Your task to perform on an android device: Search for seafood restaurants on Google Maps Image 0: 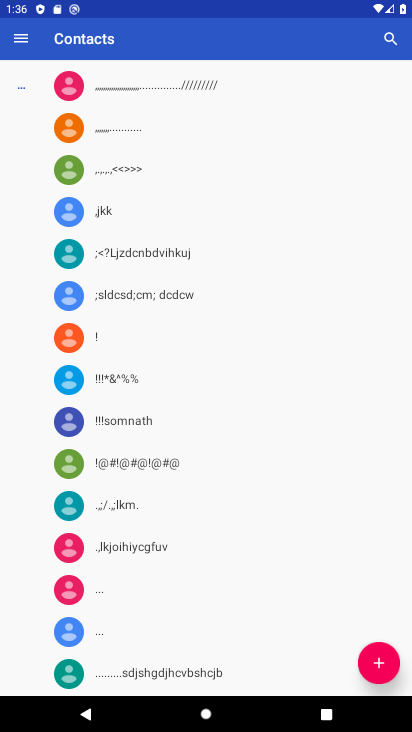
Step 0: press home button
Your task to perform on an android device: Search for seafood restaurants on Google Maps Image 1: 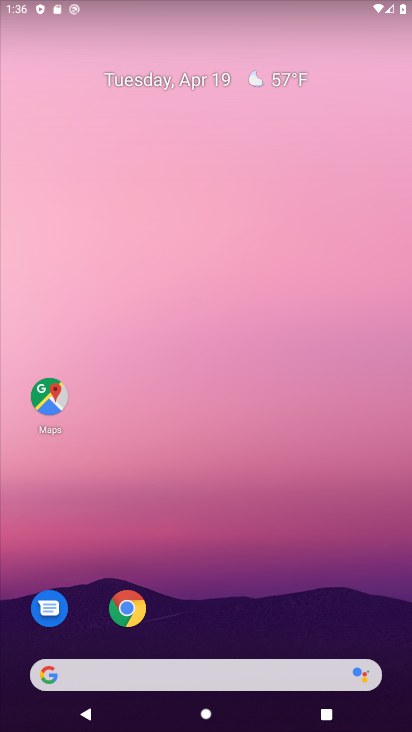
Step 1: click (48, 385)
Your task to perform on an android device: Search for seafood restaurants on Google Maps Image 2: 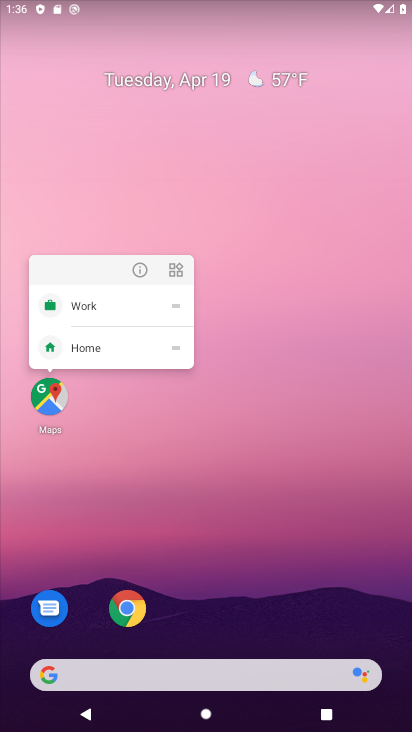
Step 2: click (55, 391)
Your task to perform on an android device: Search for seafood restaurants on Google Maps Image 3: 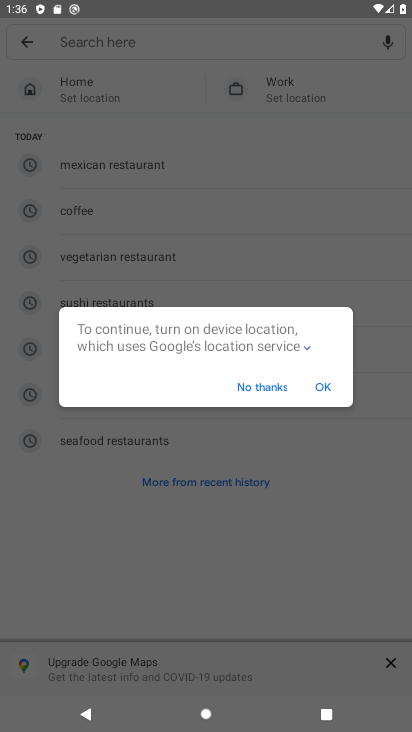
Step 3: click (271, 41)
Your task to perform on an android device: Search for seafood restaurants on Google Maps Image 4: 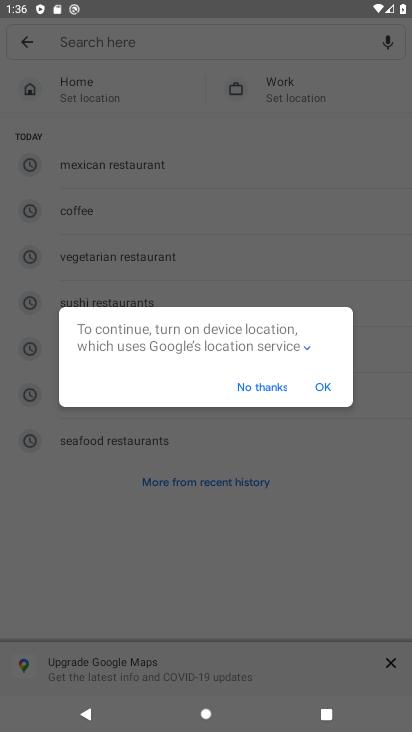
Step 4: click (326, 387)
Your task to perform on an android device: Search for seafood restaurants on Google Maps Image 5: 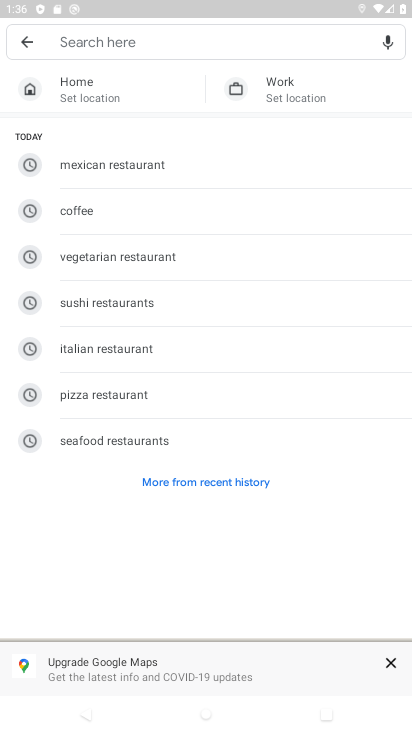
Step 5: click (258, 42)
Your task to perform on an android device: Search for seafood restaurants on Google Maps Image 6: 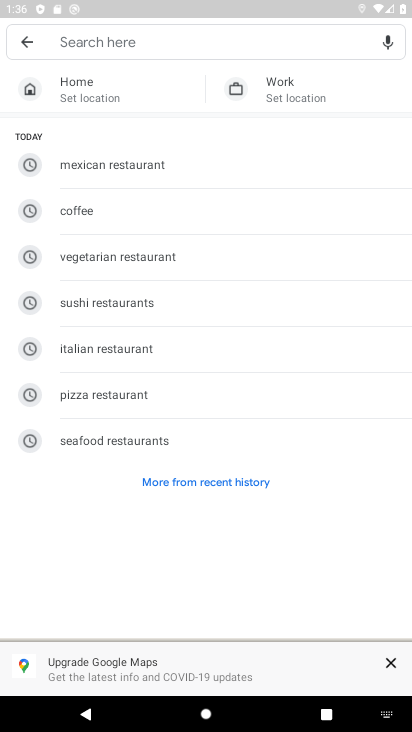
Step 6: type "seafood restaurants"
Your task to perform on an android device: Search for seafood restaurants on Google Maps Image 7: 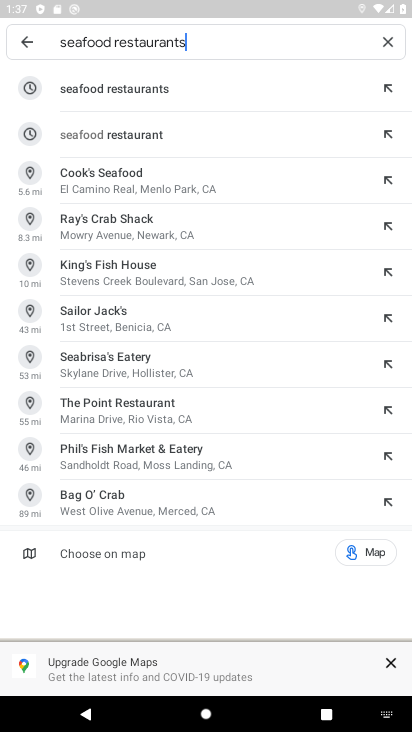
Step 7: task complete